Your task to perform on an android device: Go to notification settings Image 0: 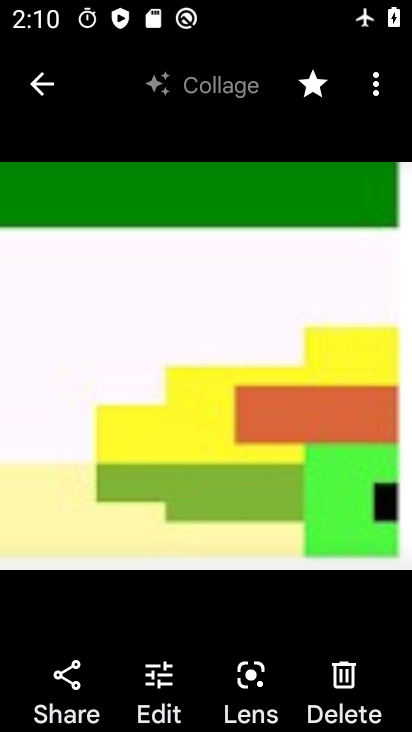
Step 0: press home button
Your task to perform on an android device: Go to notification settings Image 1: 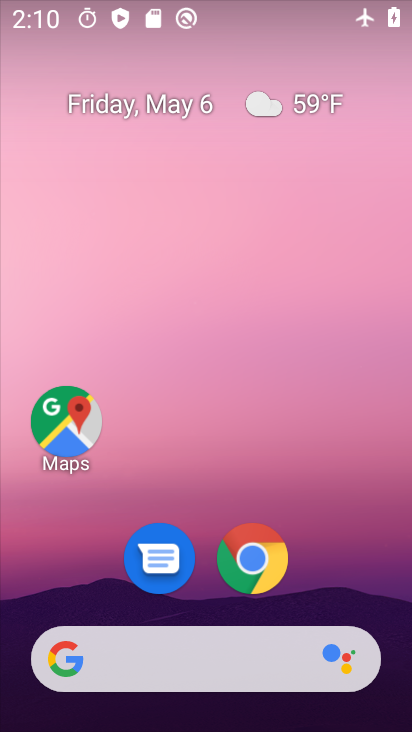
Step 1: drag from (210, 714) to (196, 287)
Your task to perform on an android device: Go to notification settings Image 2: 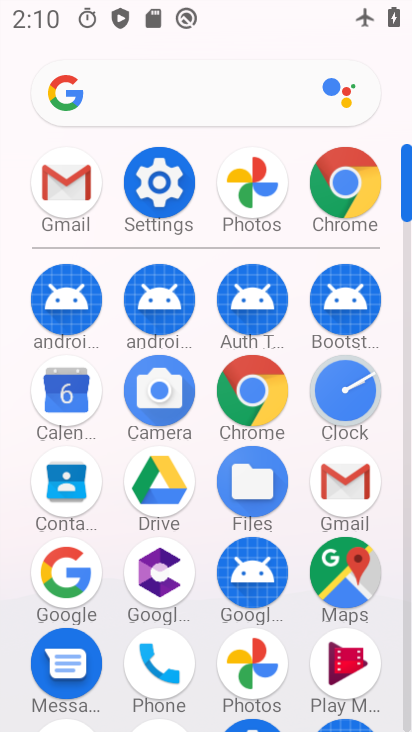
Step 2: click (150, 185)
Your task to perform on an android device: Go to notification settings Image 3: 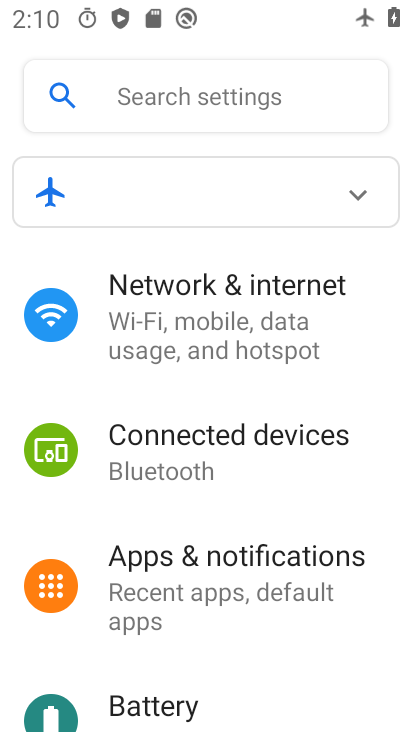
Step 3: click (226, 559)
Your task to perform on an android device: Go to notification settings Image 4: 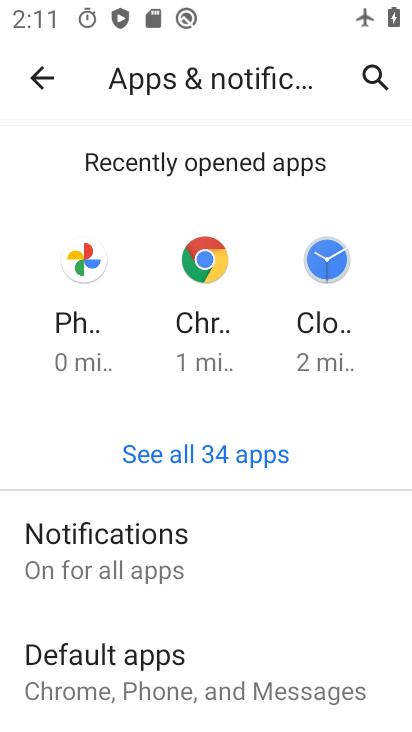
Step 4: click (90, 556)
Your task to perform on an android device: Go to notification settings Image 5: 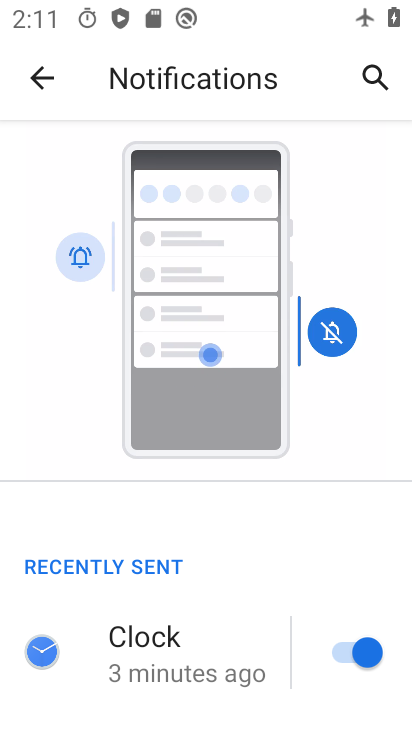
Step 5: task complete